Your task to perform on an android device: Open my contact list Image 0: 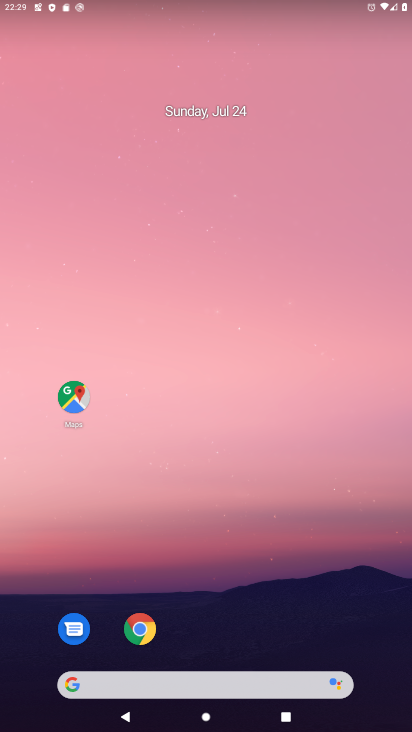
Step 0: drag from (204, 574) to (237, 129)
Your task to perform on an android device: Open my contact list Image 1: 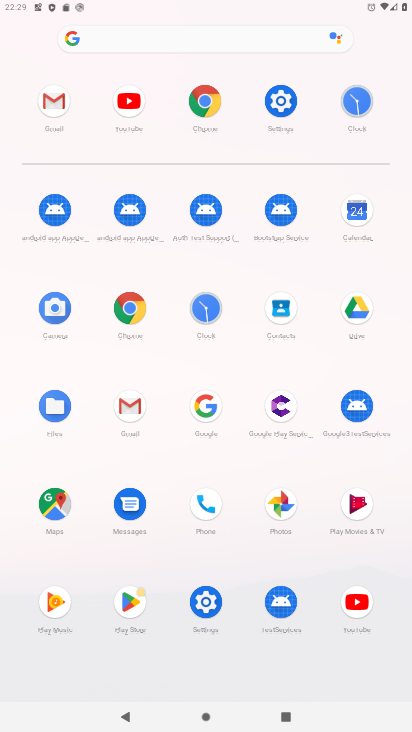
Step 1: click (277, 307)
Your task to perform on an android device: Open my contact list Image 2: 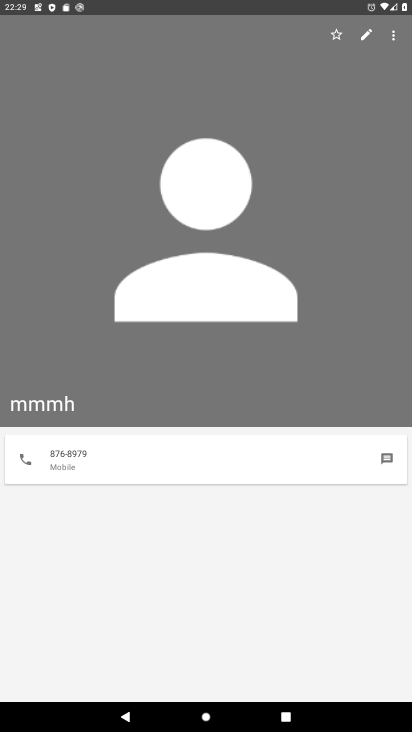
Step 2: press back button
Your task to perform on an android device: Open my contact list Image 3: 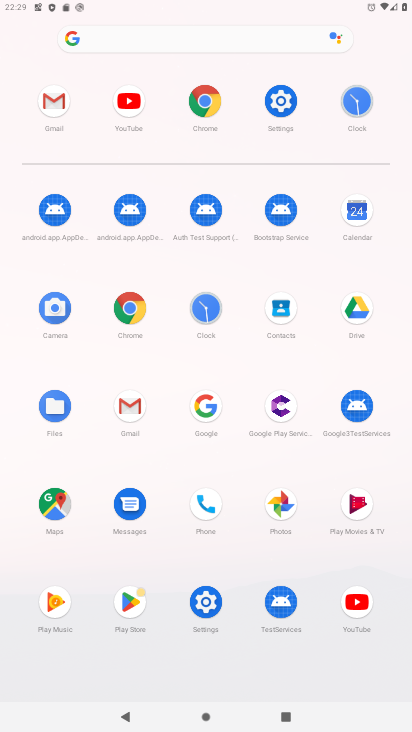
Step 3: click (277, 311)
Your task to perform on an android device: Open my contact list Image 4: 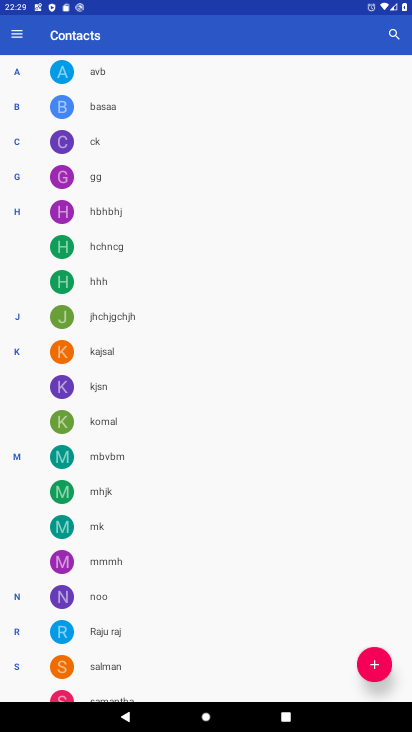
Step 4: task complete